Your task to perform on an android device: What's the weather? Image 0: 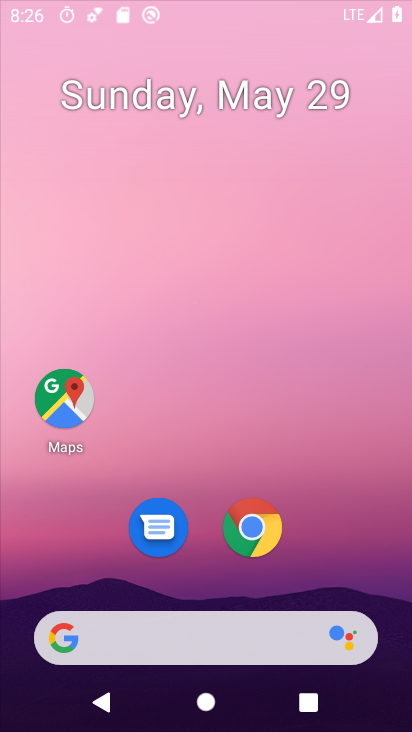
Step 0: press home button
Your task to perform on an android device: What's the weather? Image 1: 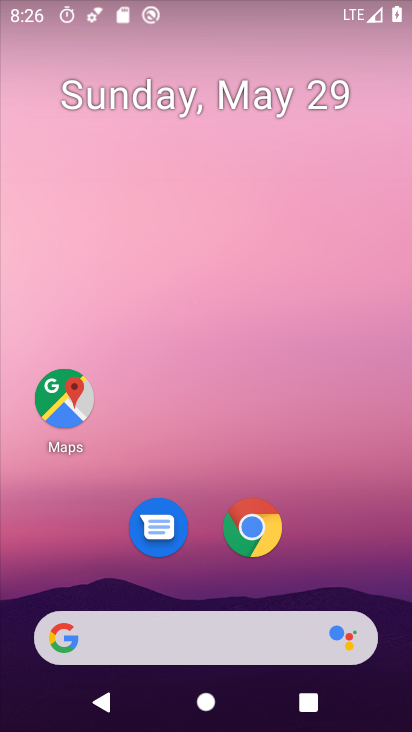
Step 1: drag from (6, 292) to (408, 34)
Your task to perform on an android device: What's the weather? Image 2: 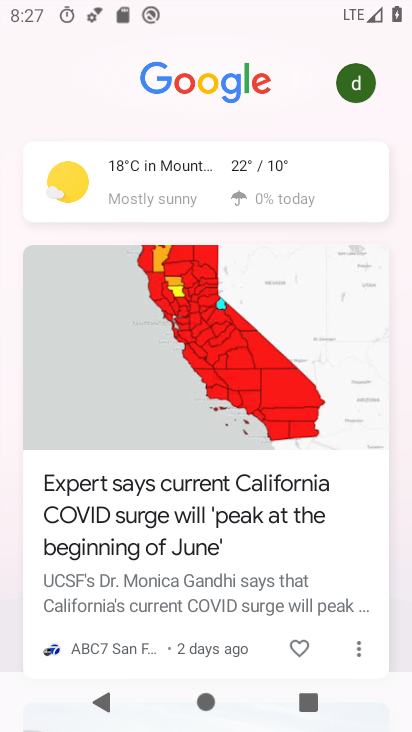
Step 2: click (256, 169)
Your task to perform on an android device: What's the weather? Image 3: 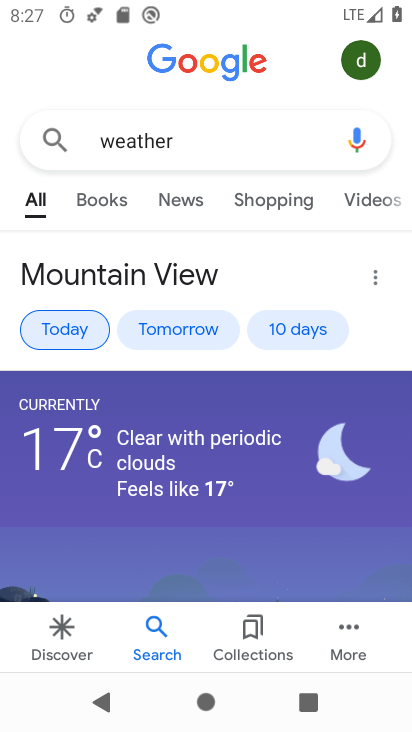
Step 3: task complete